Your task to perform on an android device: Open network settings Image 0: 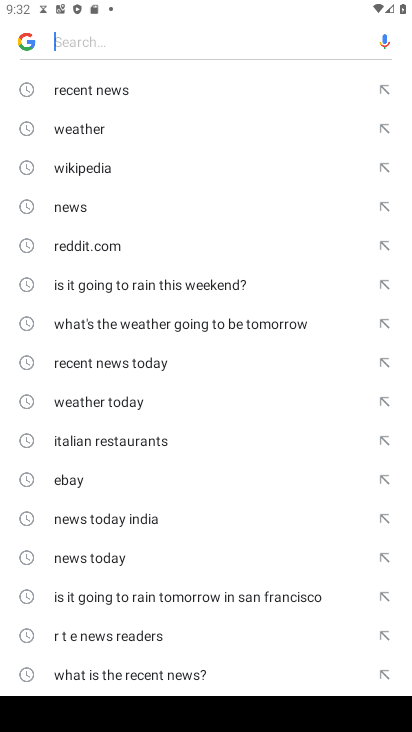
Step 0: press home button
Your task to perform on an android device: Open network settings Image 1: 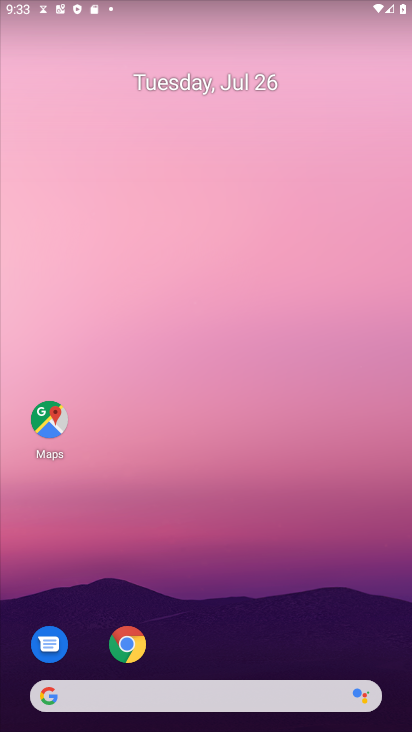
Step 1: drag from (232, 602) to (299, 18)
Your task to perform on an android device: Open network settings Image 2: 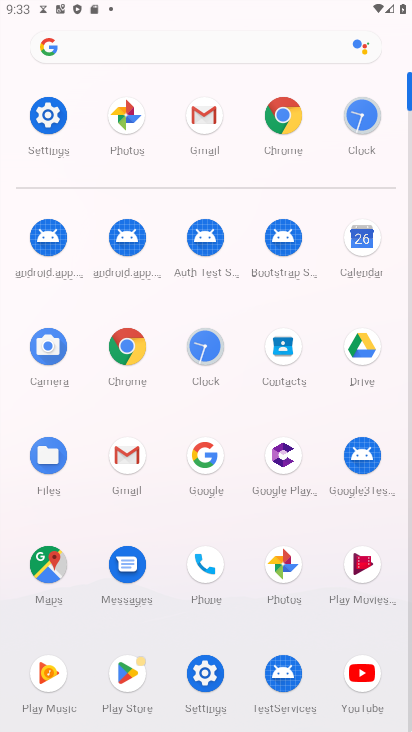
Step 2: click (209, 683)
Your task to perform on an android device: Open network settings Image 3: 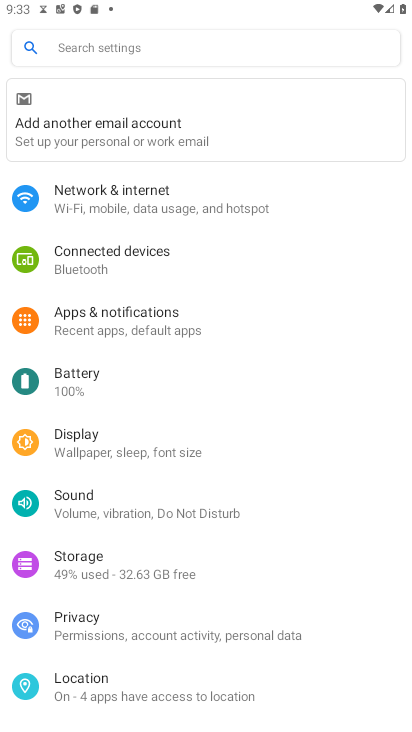
Step 3: click (107, 203)
Your task to perform on an android device: Open network settings Image 4: 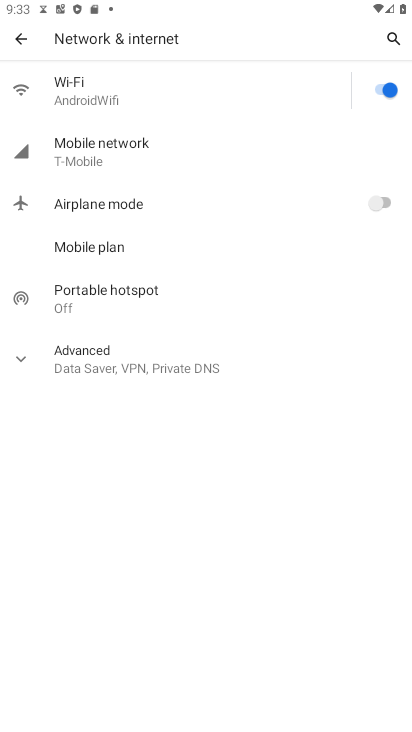
Step 4: click (120, 161)
Your task to perform on an android device: Open network settings Image 5: 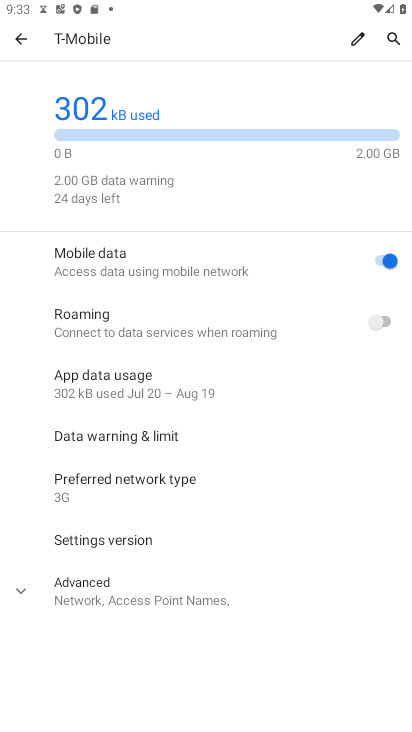
Step 5: task complete